Your task to perform on an android device: Search for seafood restaurants on Google Maps Image 0: 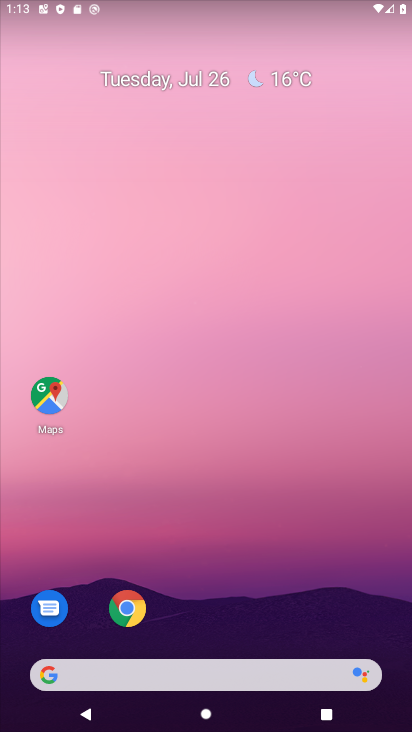
Step 0: drag from (254, 630) to (176, 158)
Your task to perform on an android device: Search for seafood restaurants on Google Maps Image 1: 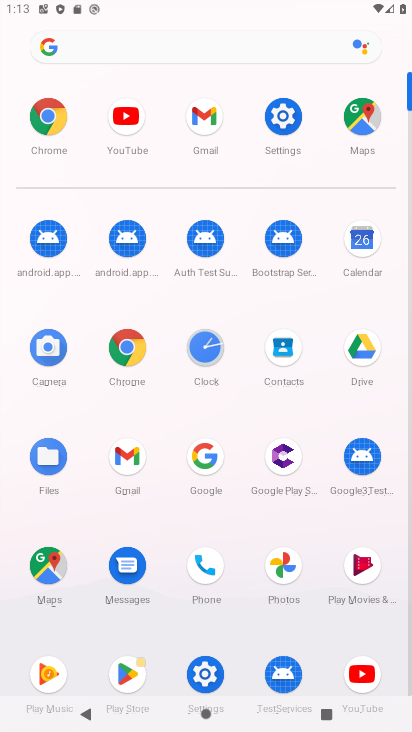
Step 1: click (55, 559)
Your task to perform on an android device: Search for seafood restaurants on Google Maps Image 2: 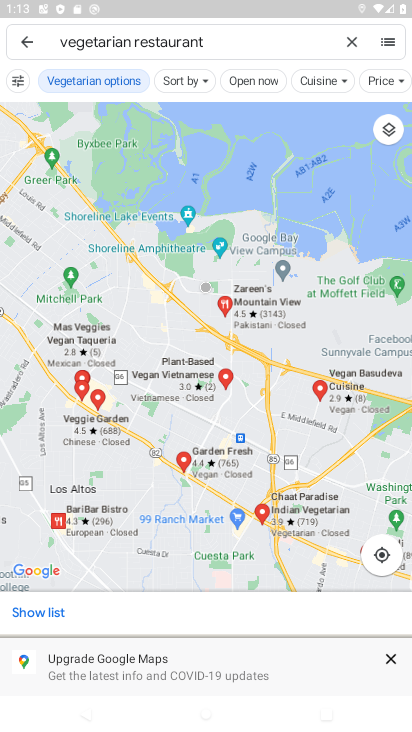
Step 2: task complete